Your task to perform on an android device: change notification settings in the gmail app Image 0: 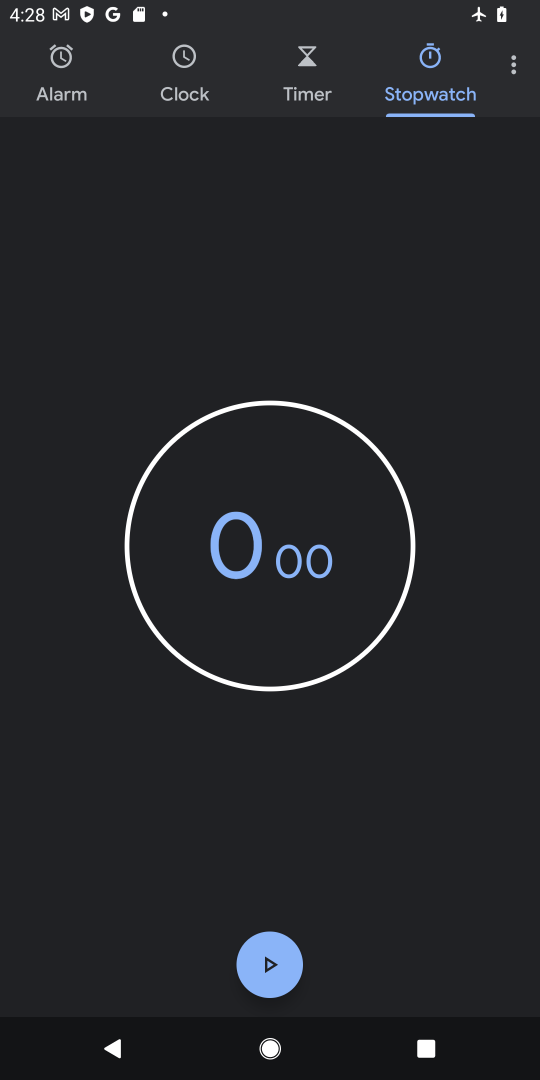
Step 0: press home button
Your task to perform on an android device: change notification settings in the gmail app Image 1: 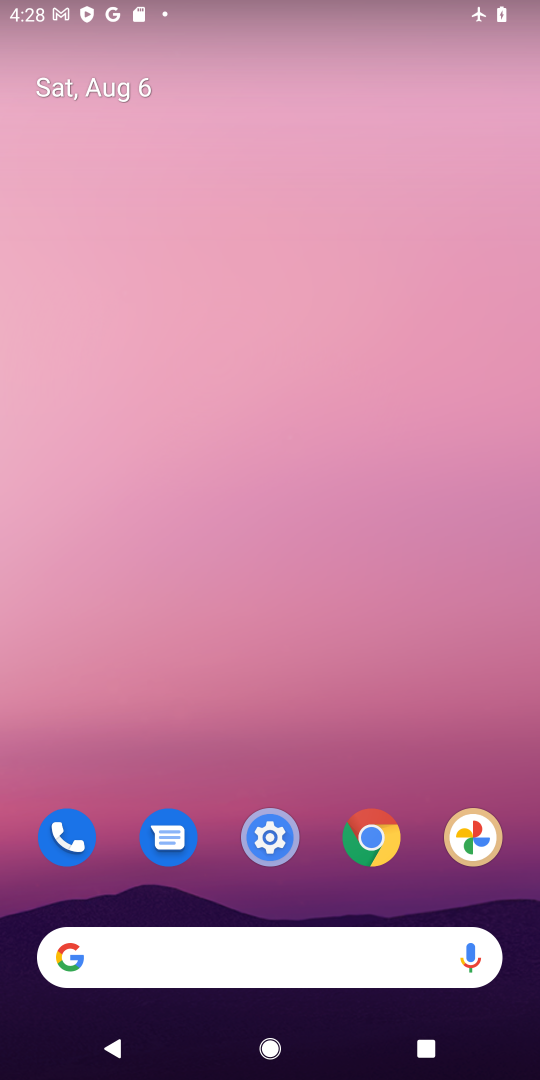
Step 1: drag from (422, 864) to (392, 236)
Your task to perform on an android device: change notification settings in the gmail app Image 2: 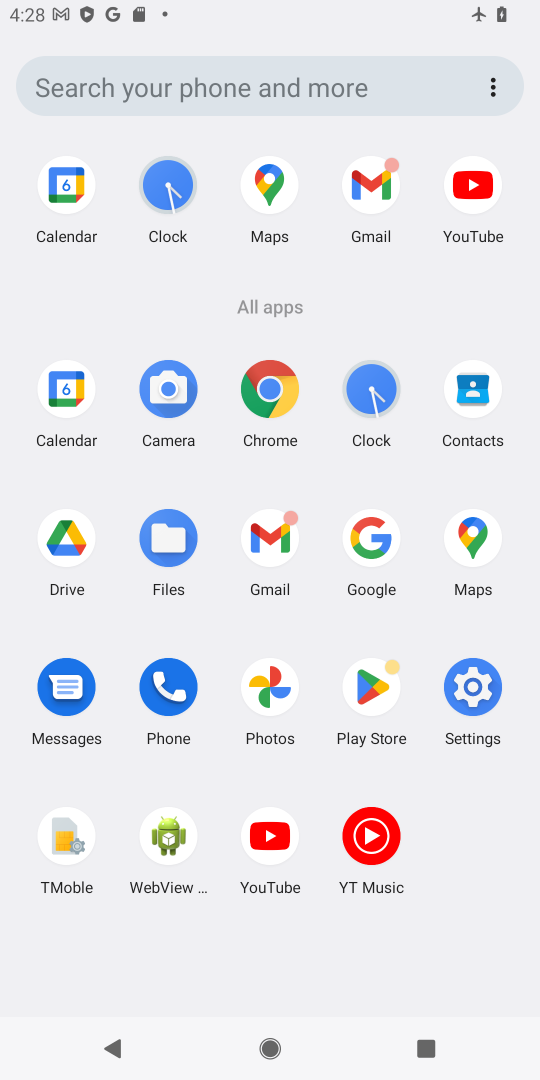
Step 2: click (268, 538)
Your task to perform on an android device: change notification settings in the gmail app Image 3: 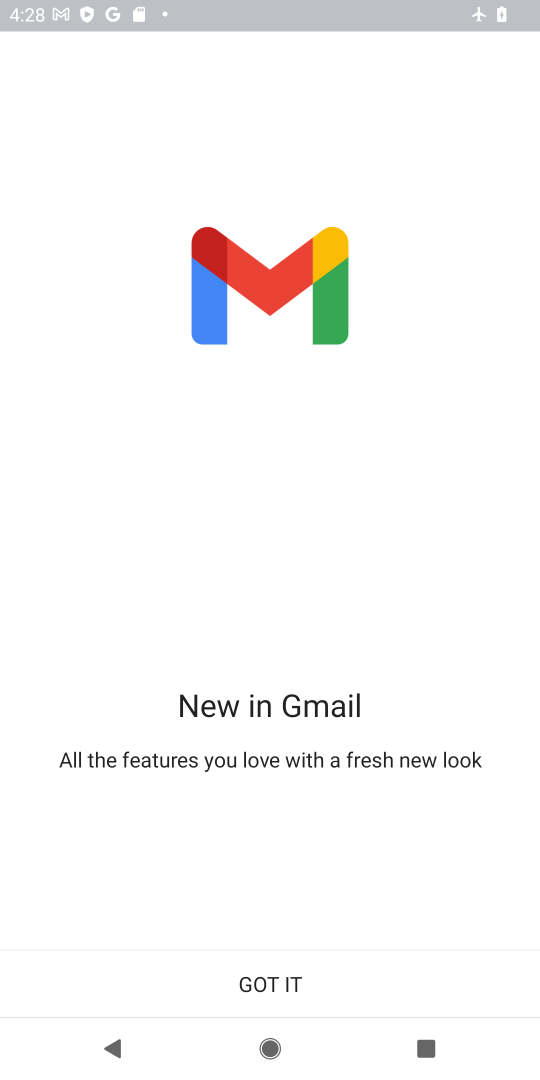
Step 3: click (268, 988)
Your task to perform on an android device: change notification settings in the gmail app Image 4: 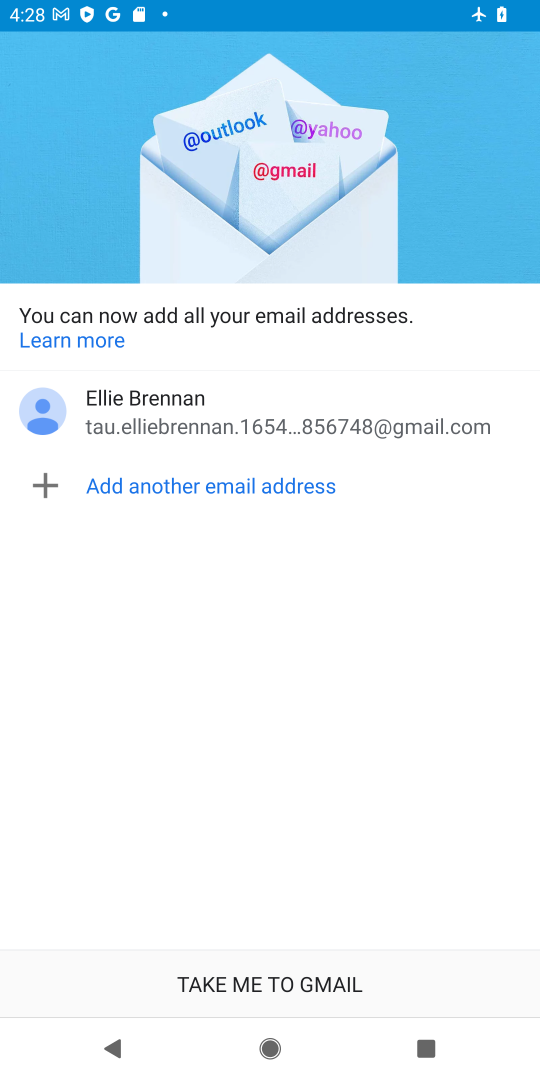
Step 4: click (268, 988)
Your task to perform on an android device: change notification settings in the gmail app Image 5: 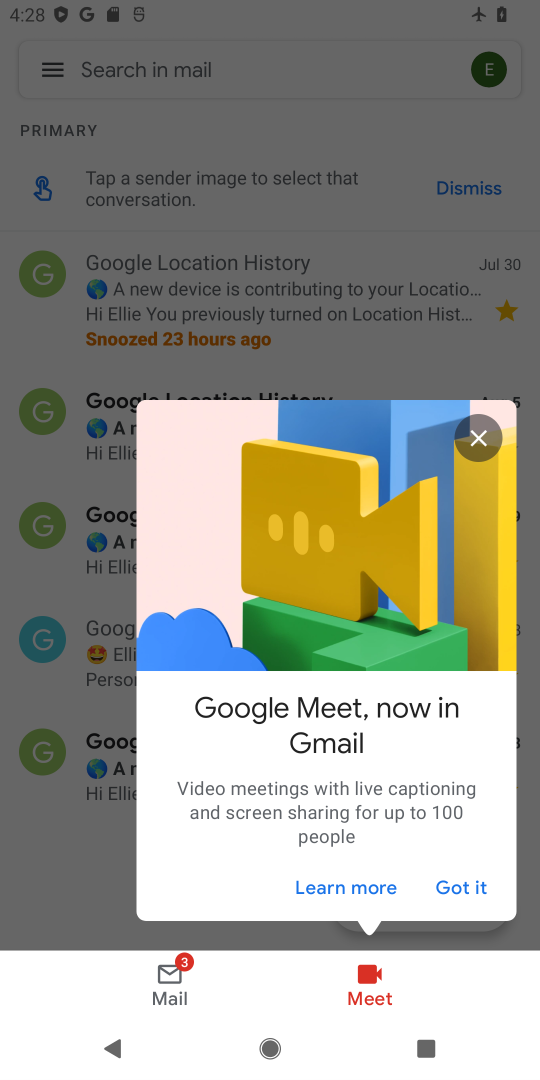
Step 5: click (455, 896)
Your task to perform on an android device: change notification settings in the gmail app Image 6: 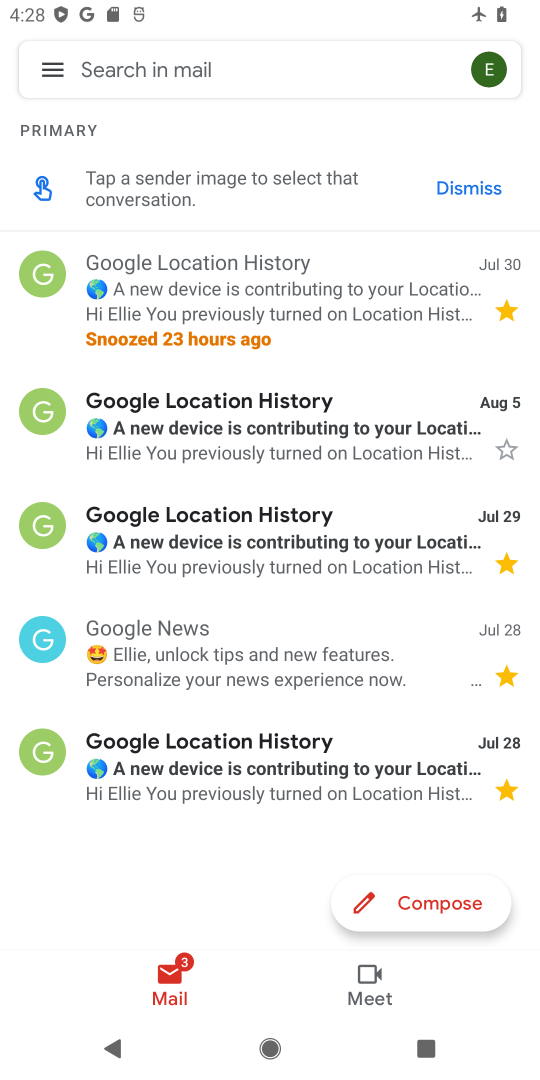
Step 6: click (45, 72)
Your task to perform on an android device: change notification settings in the gmail app Image 7: 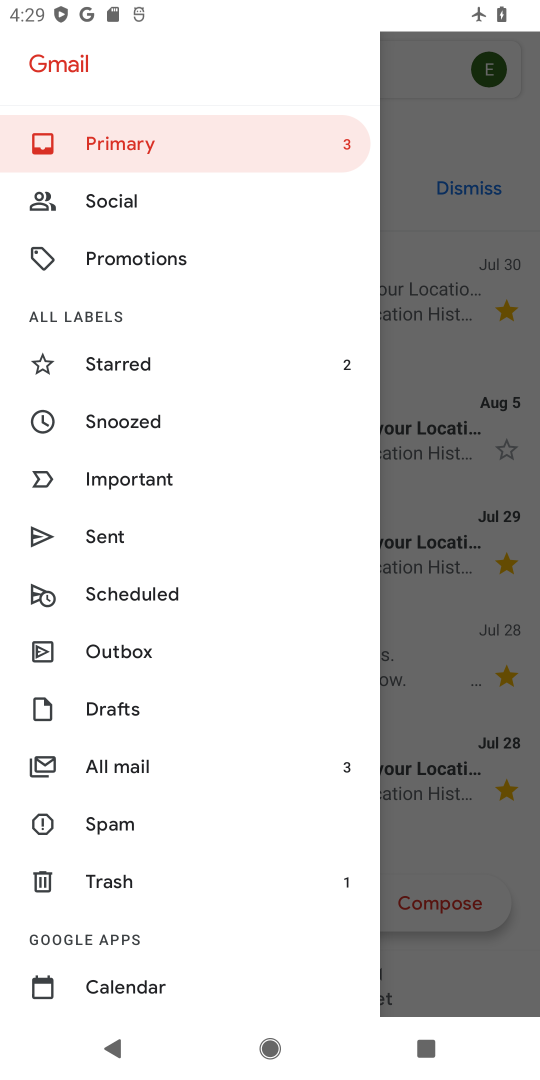
Step 7: drag from (173, 917) to (226, 262)
Your task to perform on an android device: change notification settings in the gmail app Image 8: 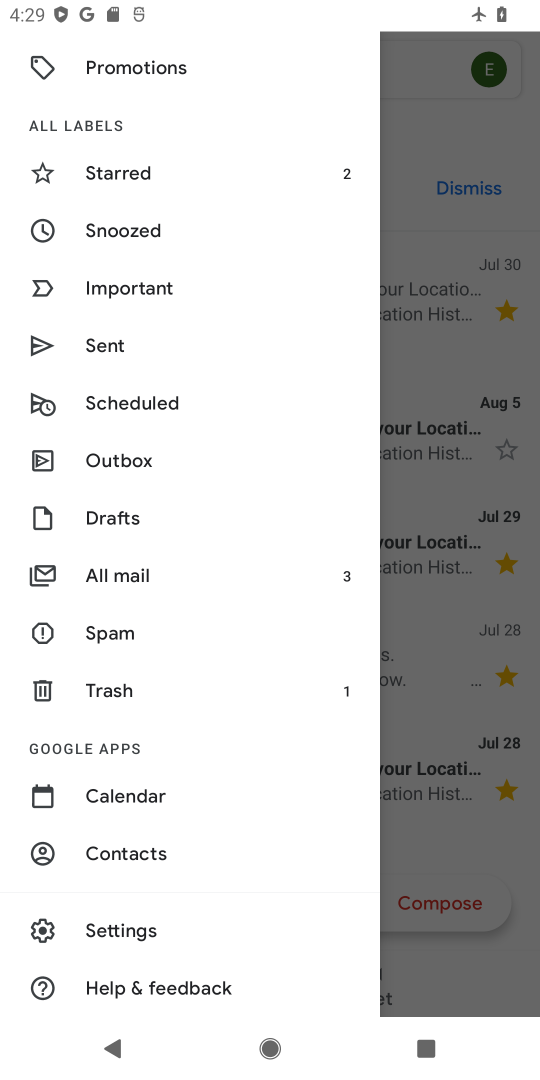
Step 8: click (101, 928)
Your task to perform on an android device: change notification settings in the gmail app Image 9: 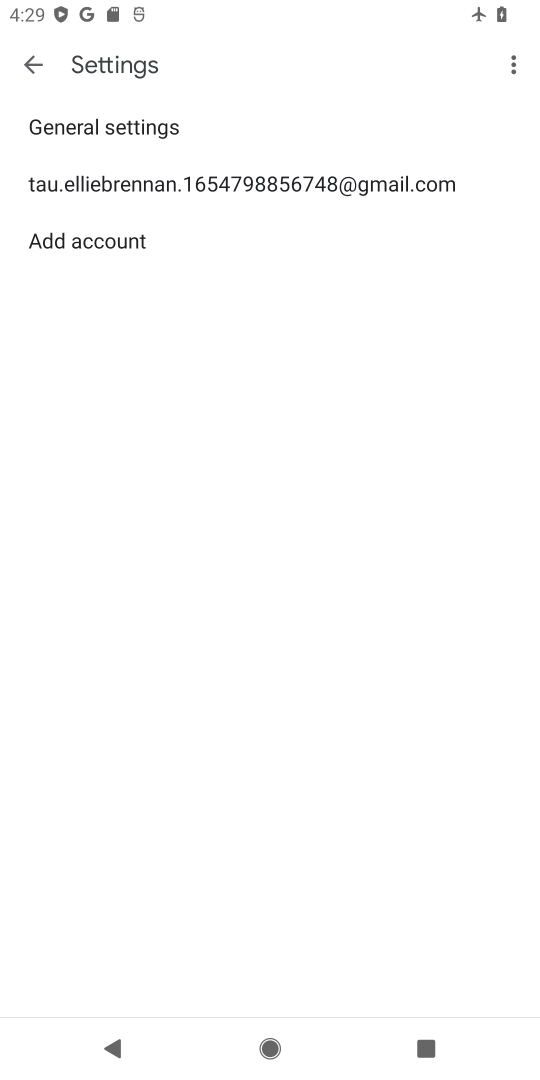
Step 9: click (169, 186)
Your task to perform on an android device: change notification settings in the gmail app Image 10: 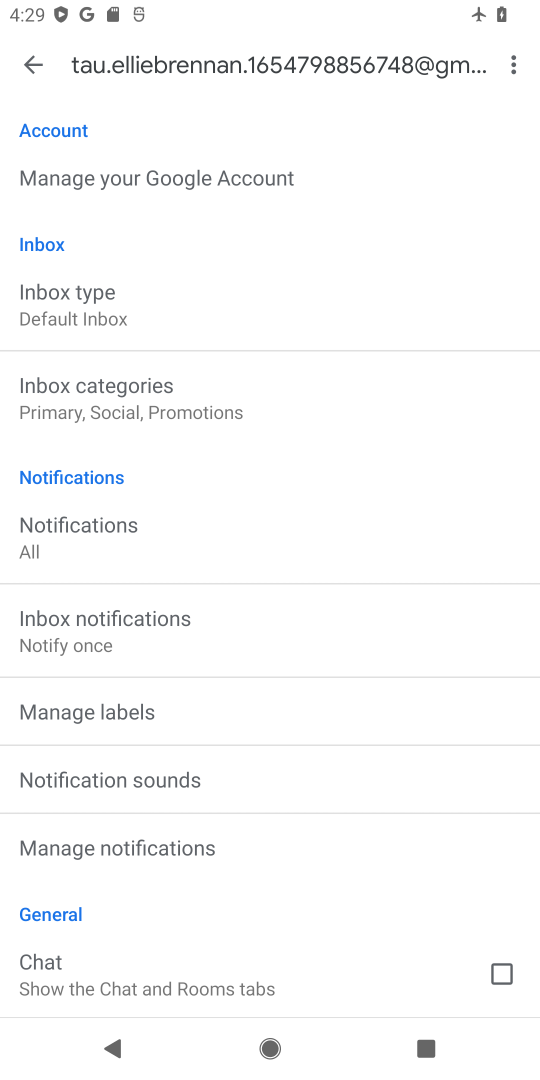
Step 10: click (108, 855)
Your task to perform on an android device: change notification settings in the gmail app Image 11: 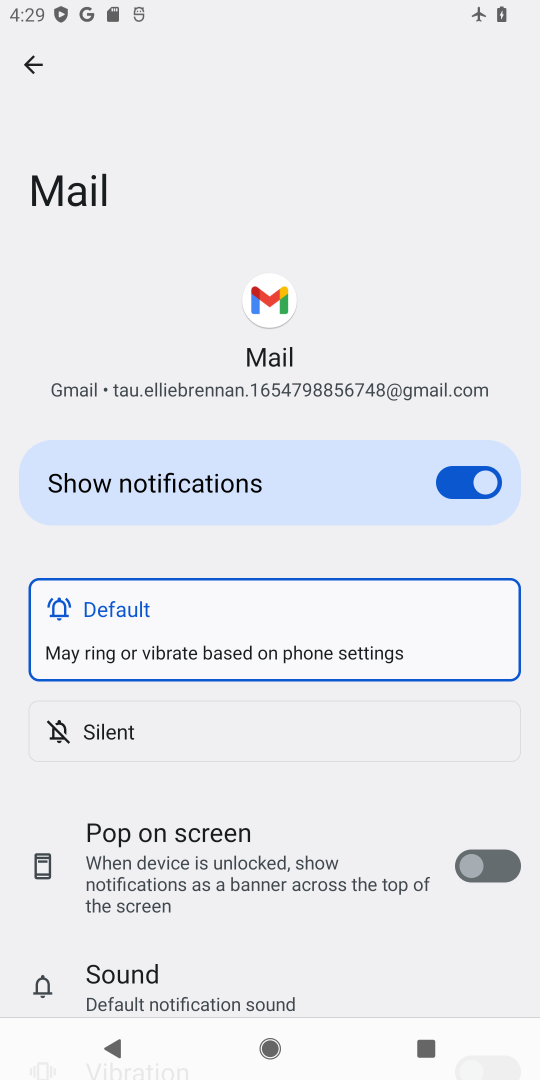
Step 11: drag from (207, 878) to (226, 655)
Your task to perform on an android device: change notification settings in the gmail app Image 12: 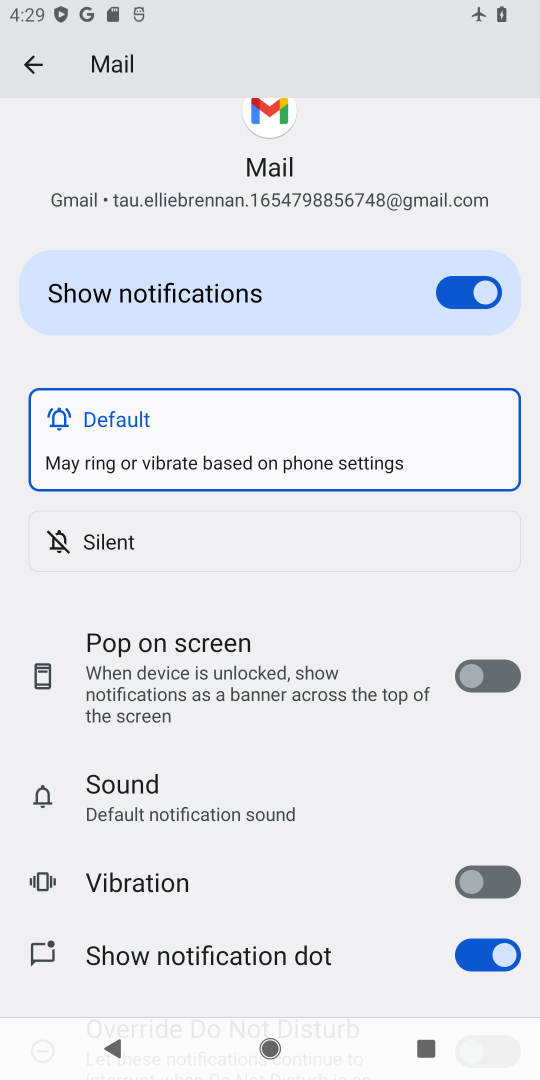
Step 12: click (449, 292)
Your task to perform on an android device: change notification settings in the gmail app Image 13: 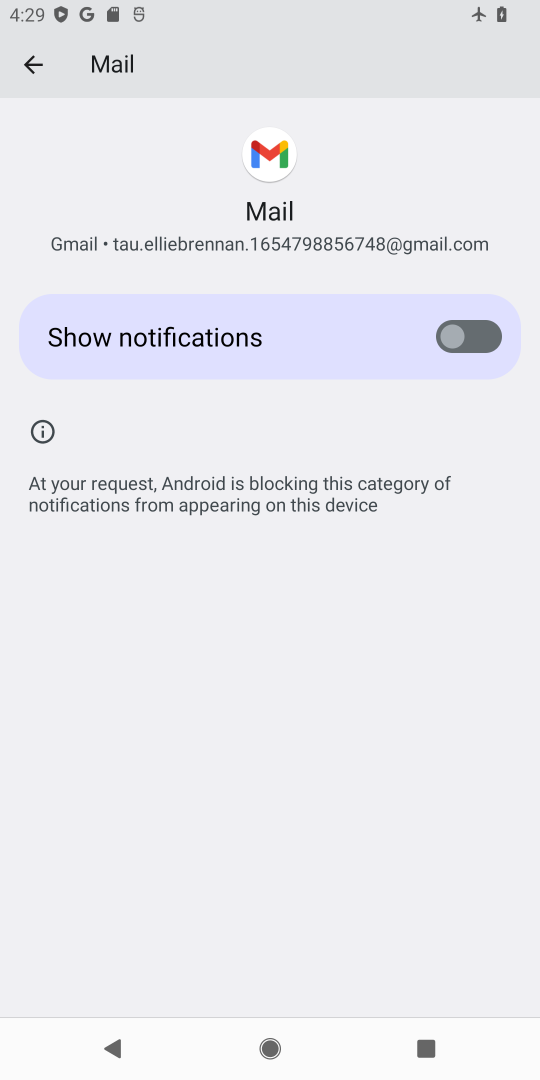
Step 13: task complete